Your task to perform on an android device: Open Amazon Image 0: 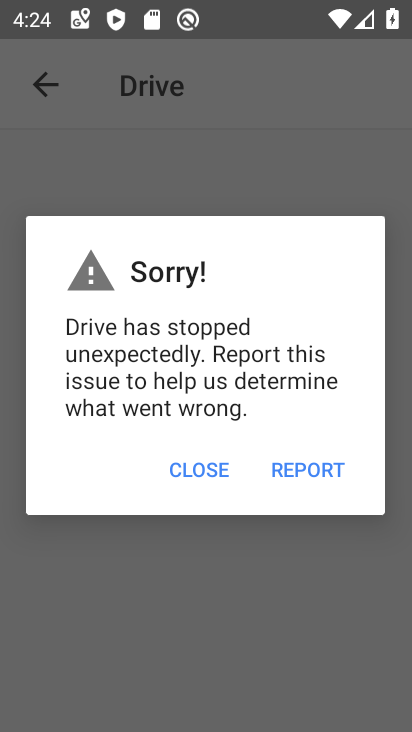
Step 0: press home button
Your task to perform on an android device: Open Amazon Image 1: 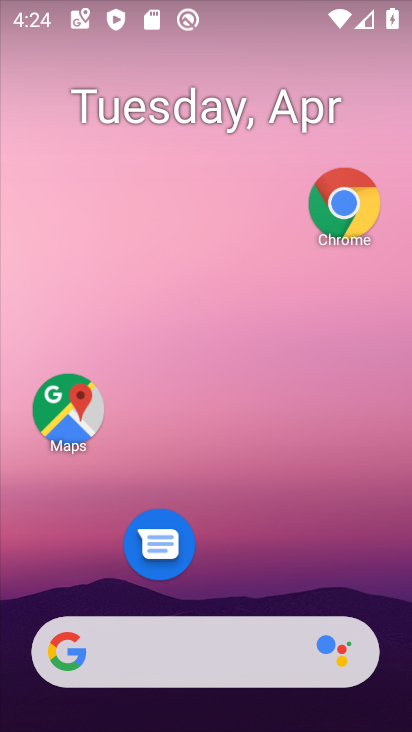
Step 1: click (361, 194)
Your task to perform on an android device: Open Amazon Image 2: 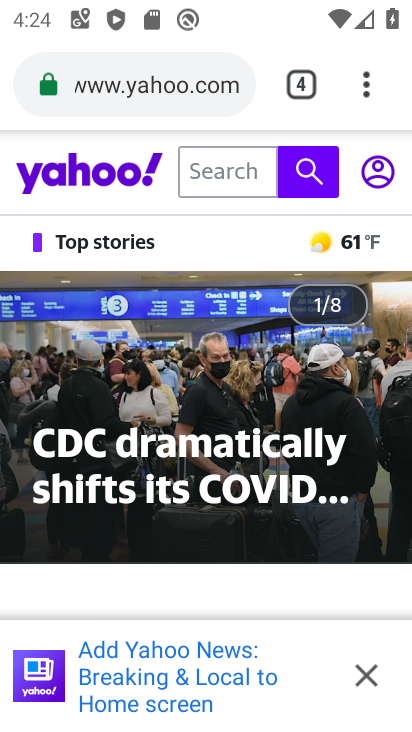
Step 2: click (179, 87)
Your task to perform on an android device: Open Amazon Image 3: 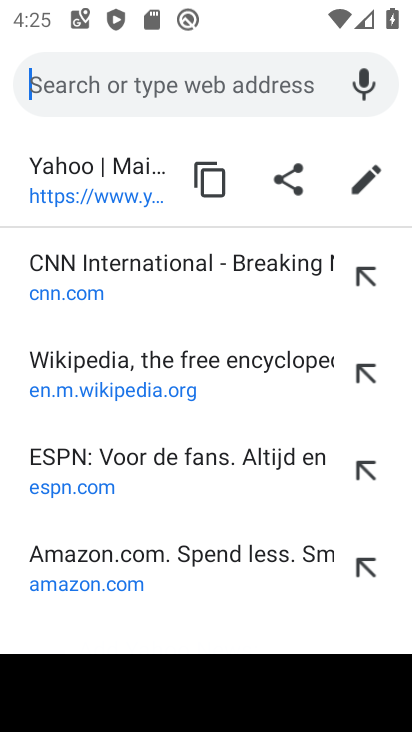
Step 3: type "amazon.com"
Your task to perform on an android device: Open Amazon Image 4: 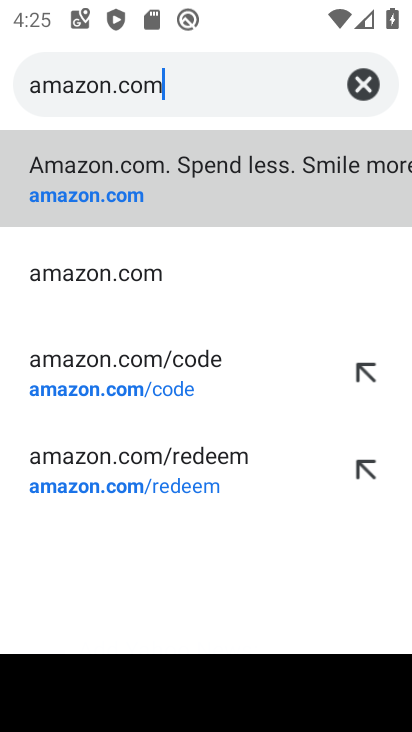
Step 4: click (111, 251)
Your task to perform on an android device: Open Amazon Image 5: 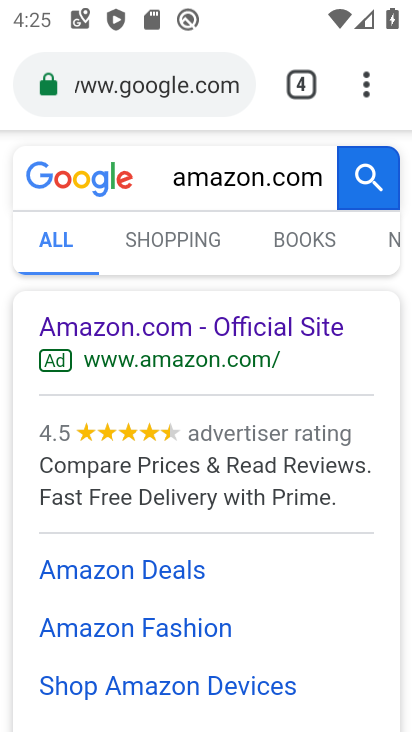
Step 5: task complete